Your task to perform on an android device: visit the assistant section in the google photos Image 0: 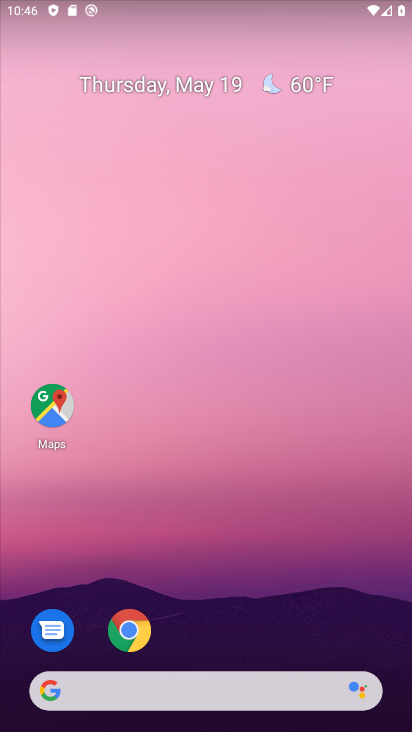
Step 0: drag from (245, 630) to (294, 140)
Your task to perform on an android device: visit the assistant section in the google photos Image 1: 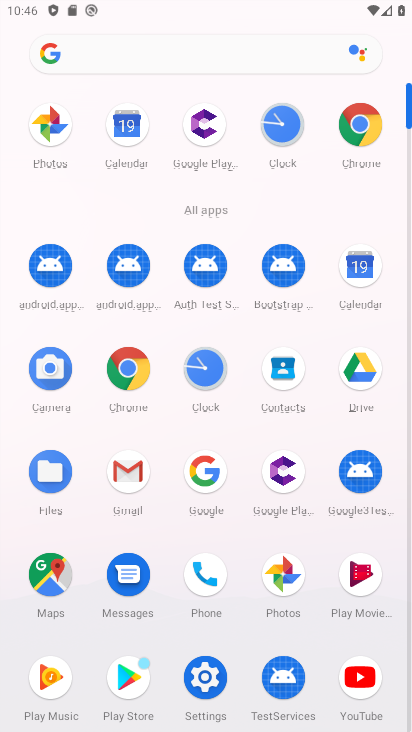
Step 1: click (50, 130)
Your task to perform on an android device: visit the assistant section in the google photos Image 2: 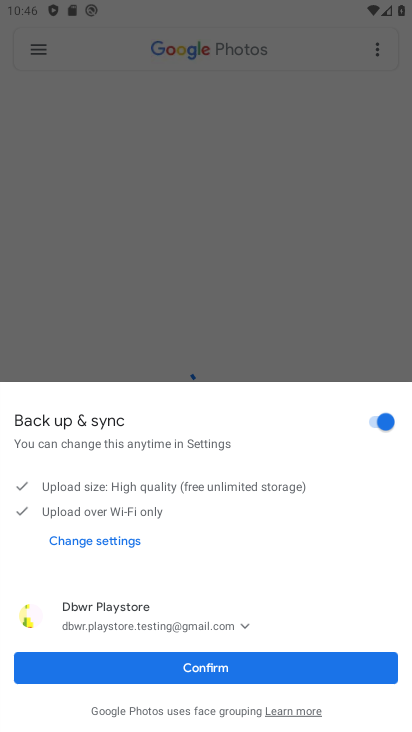
Step 2: click (169, 682)
Your task to perform on an android device: visit the assistant section in the google photos Image 3: 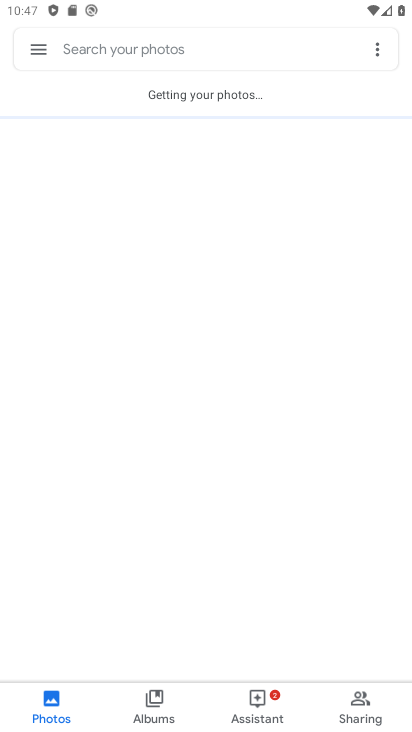
Step 3: click (251, 706)
Your task to perform on an android device: visit the assistant section in the google photos Image 4: 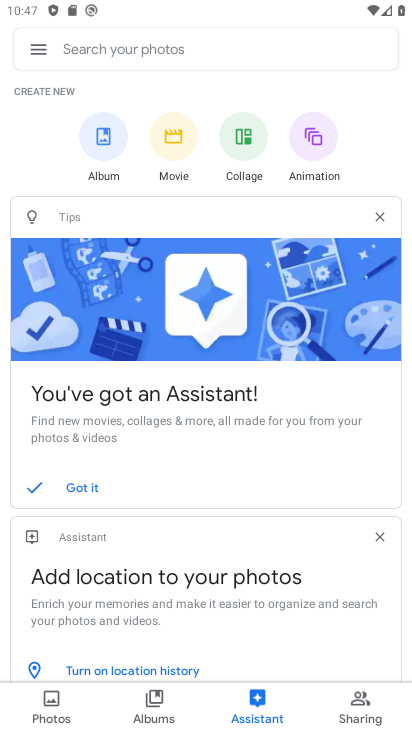
Step 4: task complete